Your task to perform on an android device: Turn on the flashlight Image 0: 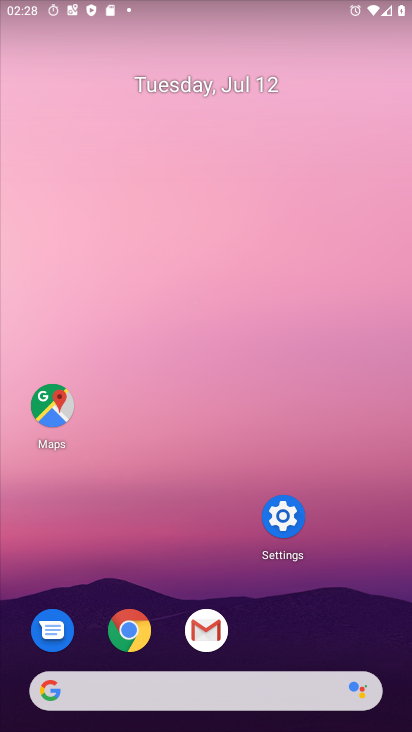
Step 0: click (283, 525)
Your task to perform on an android device: Turn on the flashlight Image 1: 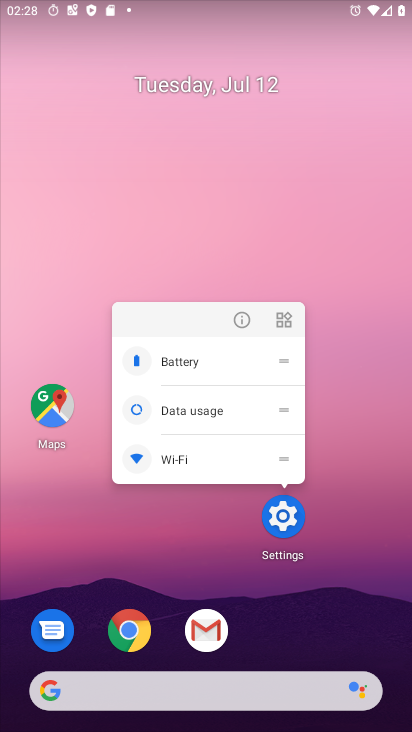
Step 1: click (288, 501)
Your task to perform on an android device: Turn on the flashlight Image 2: 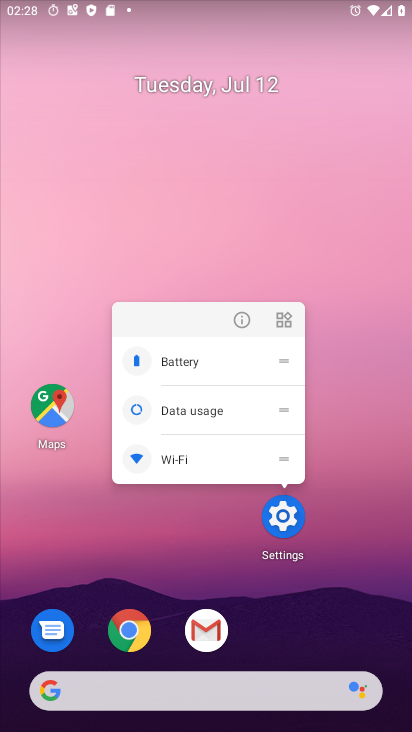
Step 2: click (281, 517)
Your task to perform on an android device: Turn on the flashlight Image 3: 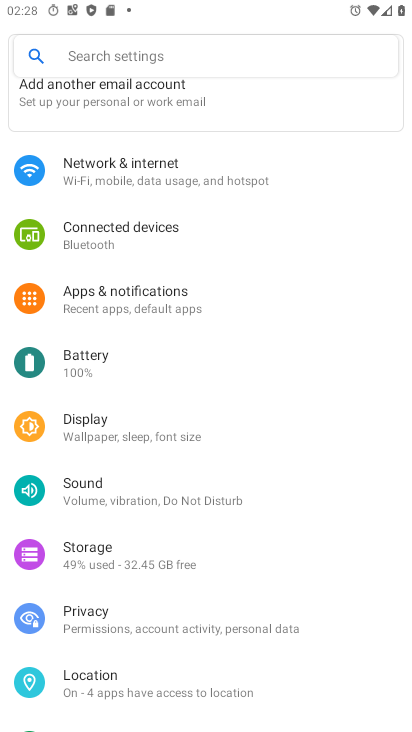
Step 3: click (89, 54)
Your task to perform on an android device: Turn on the flashlight Image 4: 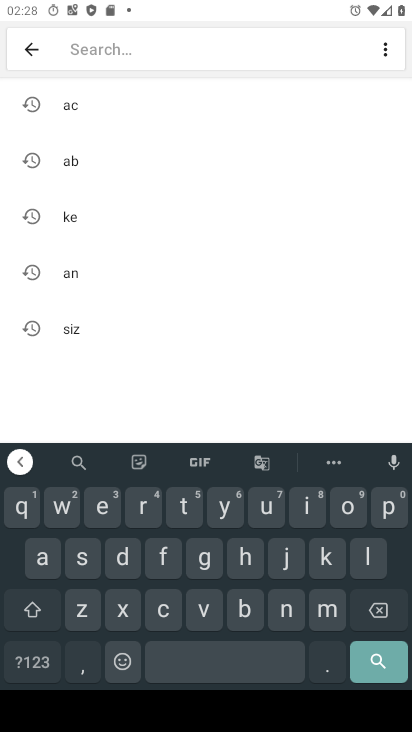
Step 4: click (160, 569)
Your task to perform on an android device: Turn on the flashlight Image 5: 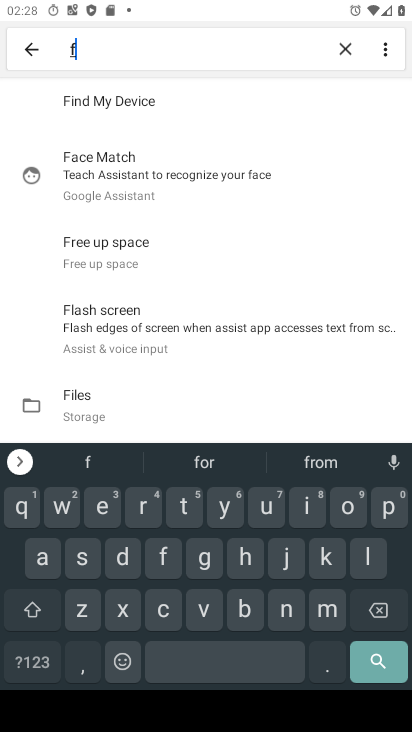
Step 5: click (372, 561)
Your task to perform on an android device: Turn on the flashlight Image 6: 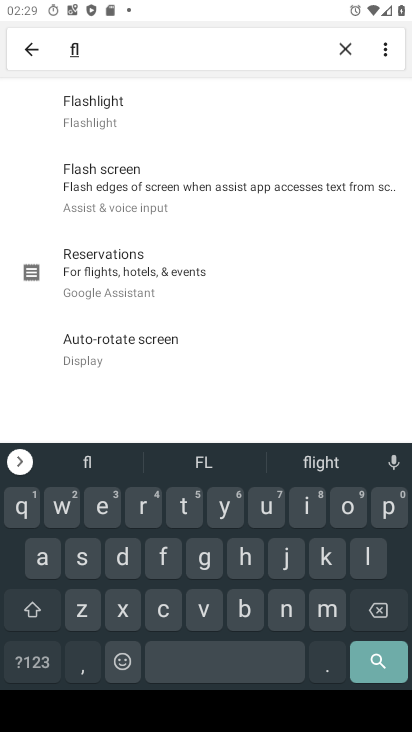
Step 6: click (101, 109)
Your task to perform on an android device: Turn on the flashlight Image 7: 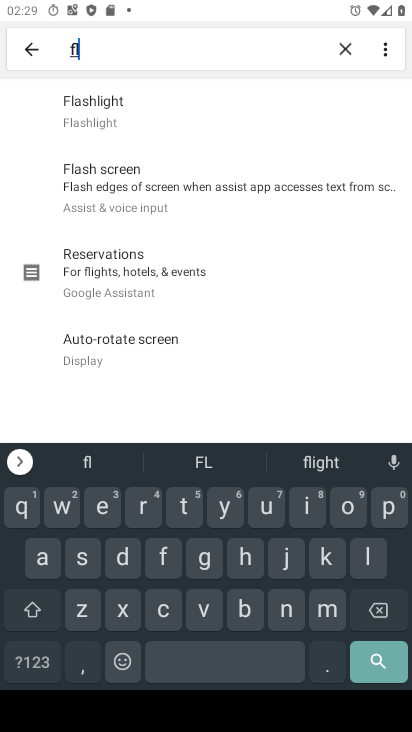
Step 7: click (101, 109)
Your task to perform on an android device: Turn on the flashlight Image 8: 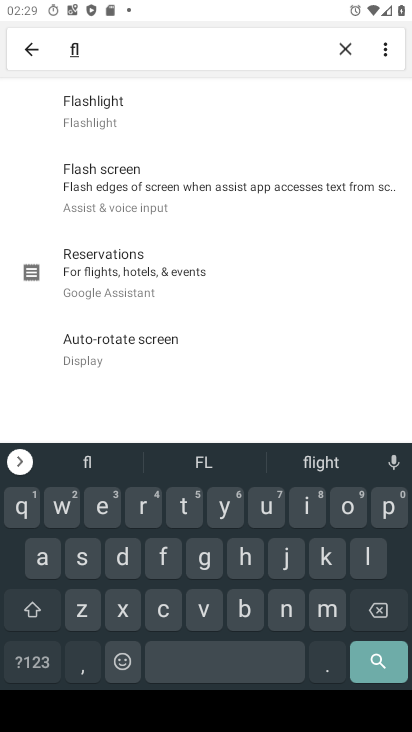
Step 8: click (101, 109)
Your task to perform on an android device: Turn on the flashlight Image 9: 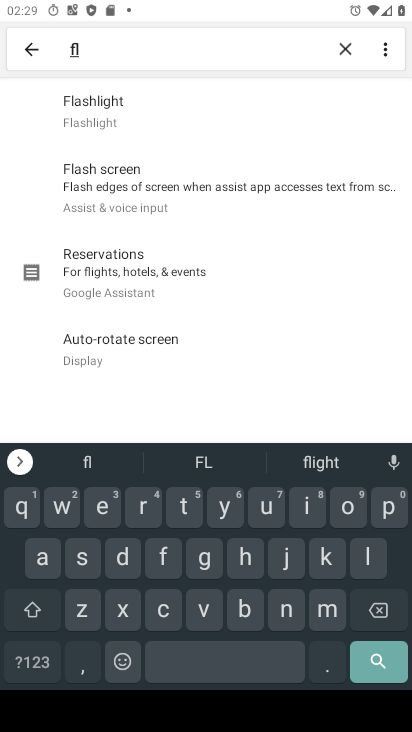
Step 9: task complete